Your task to perform on an android device: see sites visited before in the chrome app Image 0: 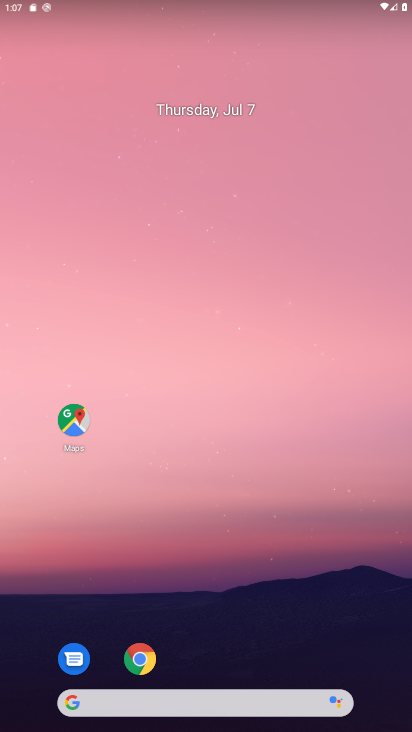
Step 0: drag from (194, 676) to (279, 247)
Your task to perform on an android device: see sites visited before in the chrome app Image 1: 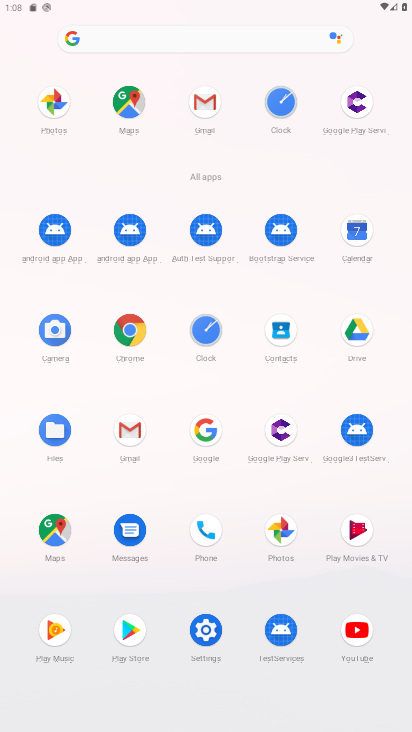
Step 1: click (128, 330)
Your task to perform on an android device: see sites visited before in the chrome app Image 2: 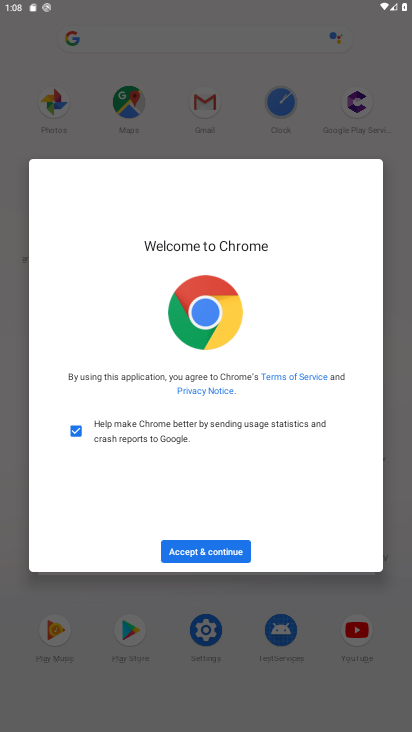
Step 2: click (191, 551)
Your task to perform on an android device: see sites visited before in the chrome app Image 3: 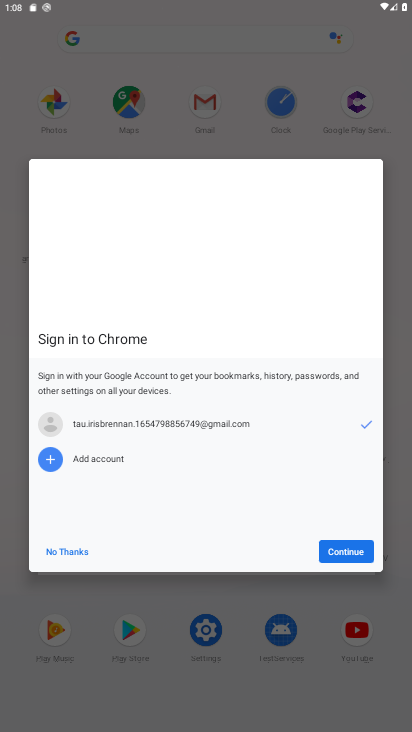
Step 3: click (67, 552)
Your task to perform on an android device: see sites visited before in the chrome app Image 4: 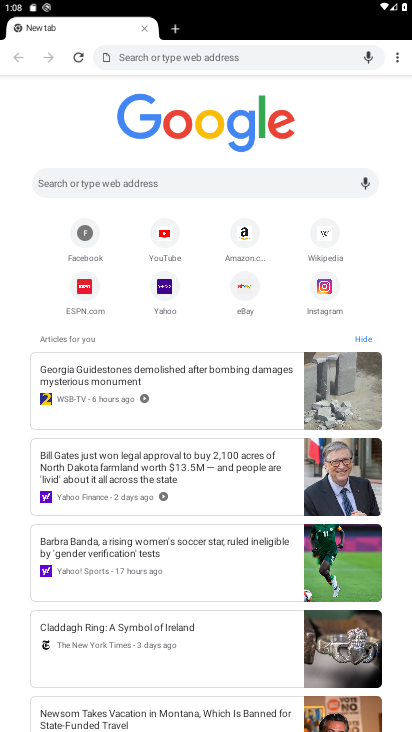
Step 4: click (393, 62)
Your task to perform on an android device: see sites visited before in the chrome app Image 5: 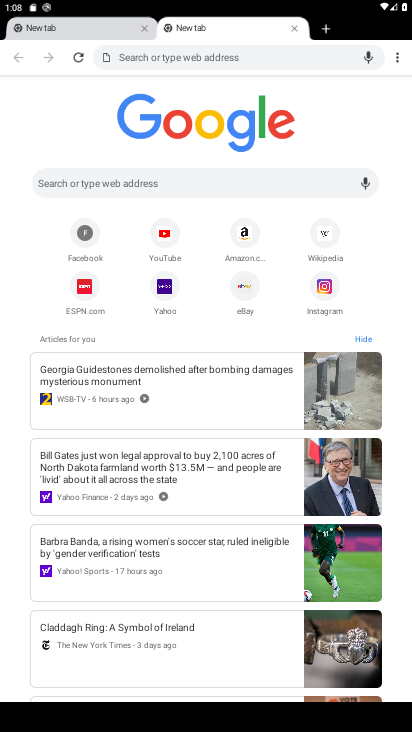
Step 5: task complete